Your task to perform on an android device: open the mobile data screen to see how much data has been used Image 0: 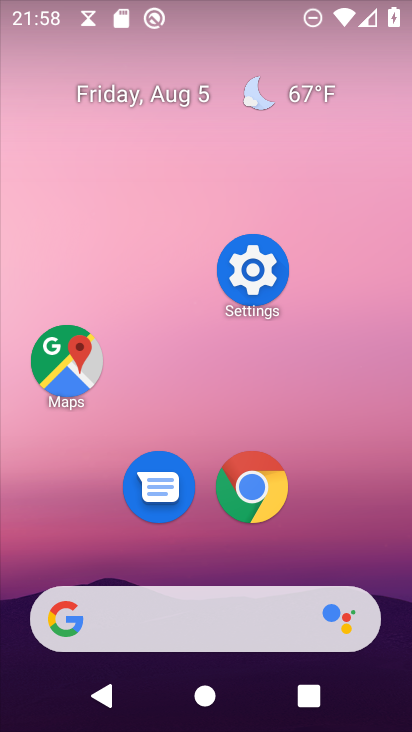
Step 0: click (252, 272)
Your task to perform on an android device: open the mobile data screen to see how much data has been used Image 1: 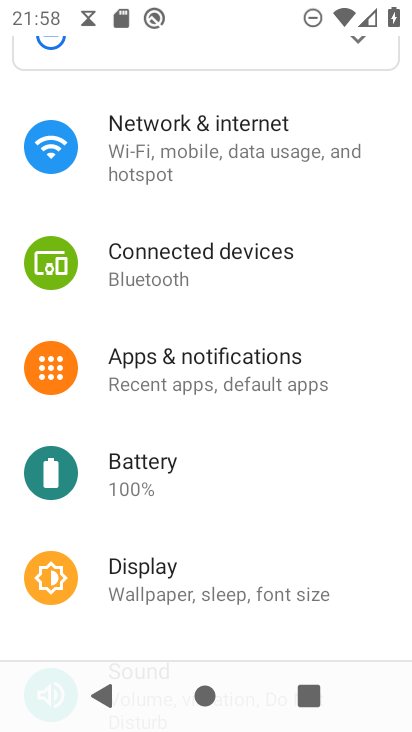
Step 1: drag from (325, 186) to (317, 481)
Your task to perform on an android device: open the mobile data screen to see how much data has been used Image 2: 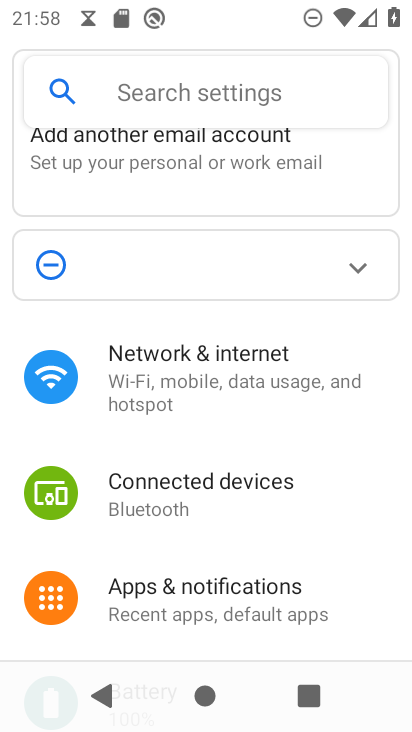
Step 2: click (177, 372)
Your task to perform on an android device: open the mobile data screen to see how much data has been used Image 3: 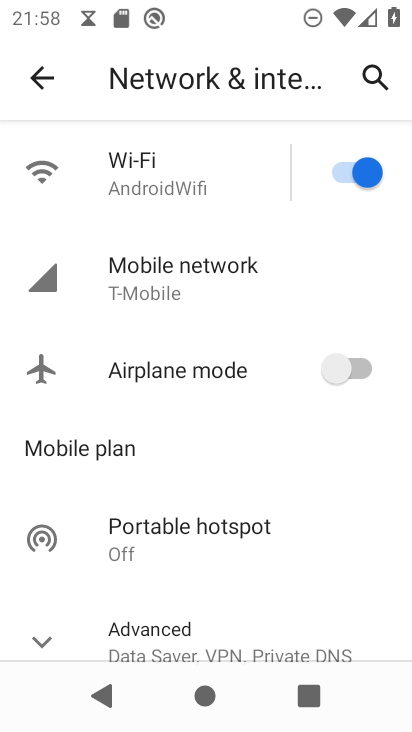
Step 3: click (195, 284)
Your task to perform on an android device: open the mobile data screen to see how much data has been used Image 4: 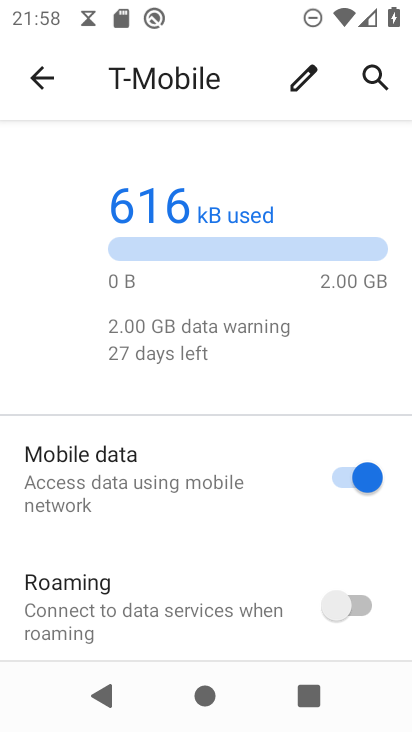
Step 4: task complete